Your task to perform on an android device: Add razer nari to the cart on bestbuy, then select checkout. Image 0: 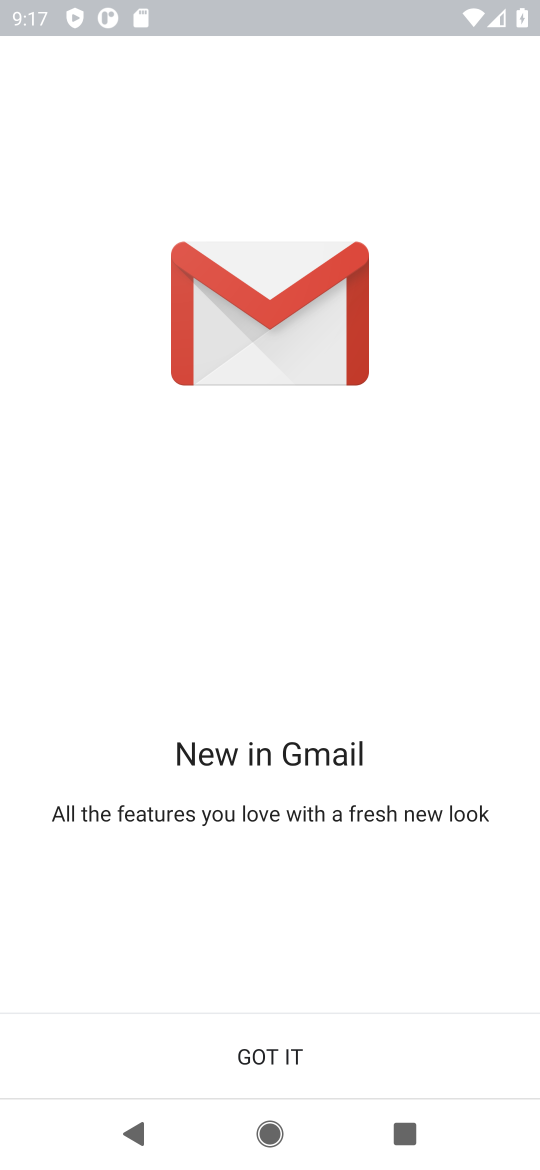
Step 0: press home button
Your task to perform on an android device: Add razer nari to the cart on bestbuy, then select checkout. Image 1: 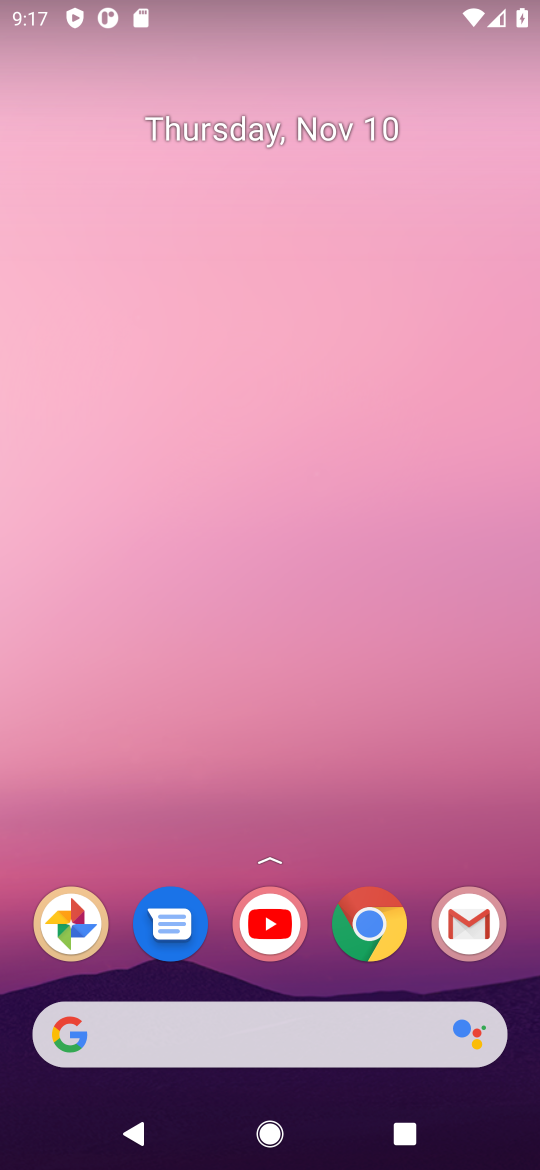
Step 1: click (376, 920)
Your task to perform on an android device: Add razer nari to the cart on bestbuy, then select checkout. Image 2: 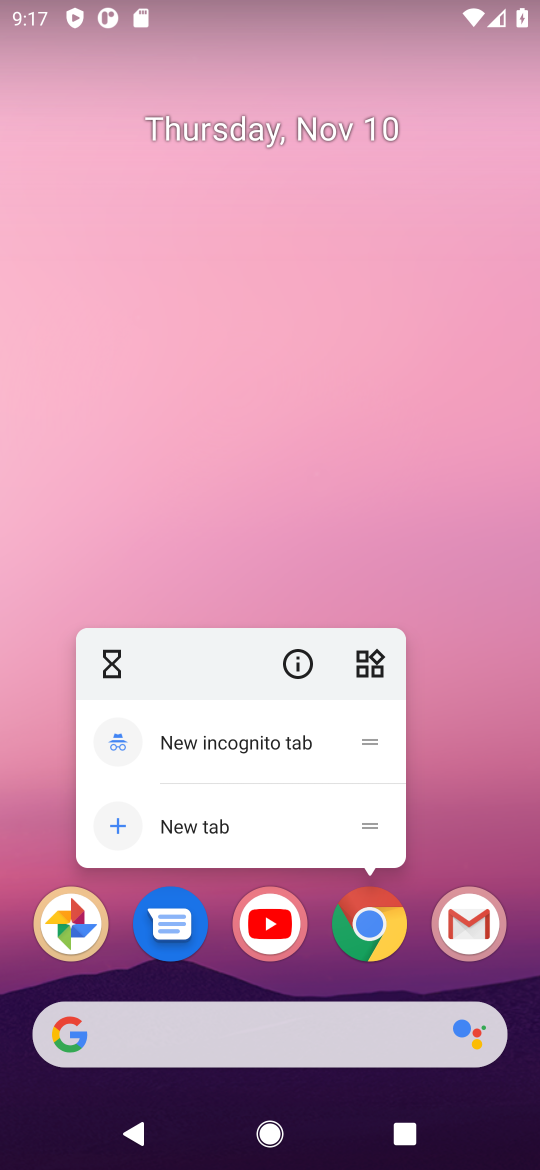
Step 2: click (376, 920)
Your task to perform on an android device: Add razer nari to the cart on bestbuy, then select checkout. Image 3: 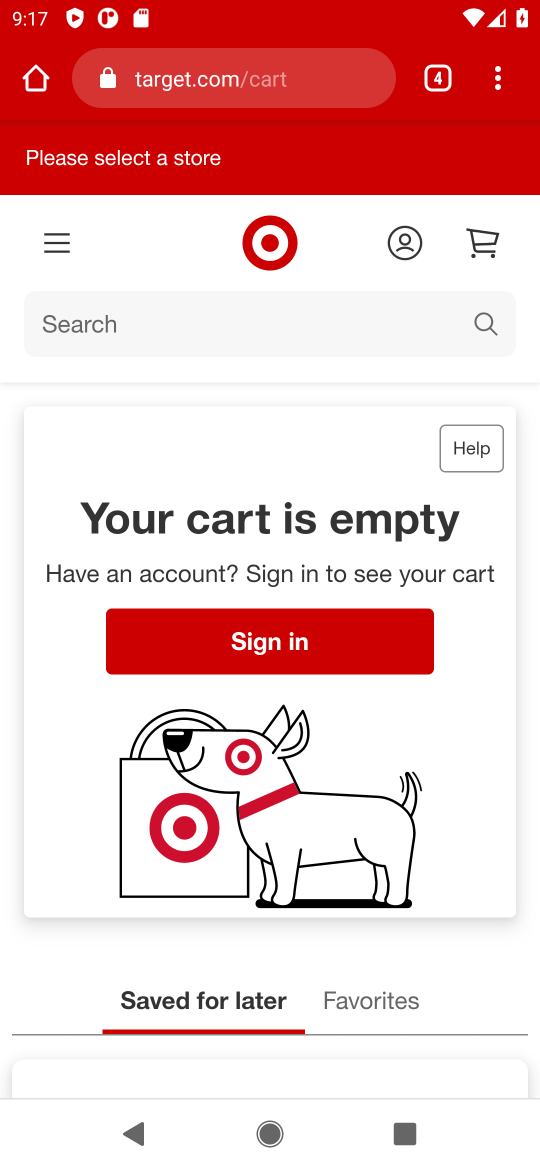
Step 3: click (226, 95)
Your task to perform on an android device: Add razer nari to the cart on bestbuy, then select checkout. Image 4: 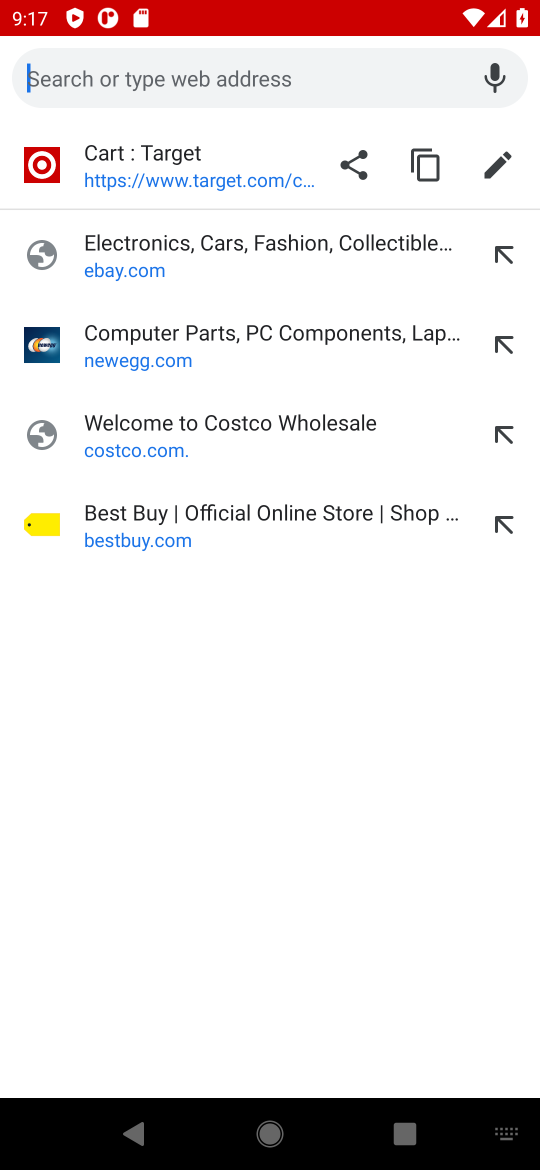
Step 4: click (136, 538)
Your task to perform on an android device: Add razer nari to the cart on bestbuy, then select checkout. Image 5: 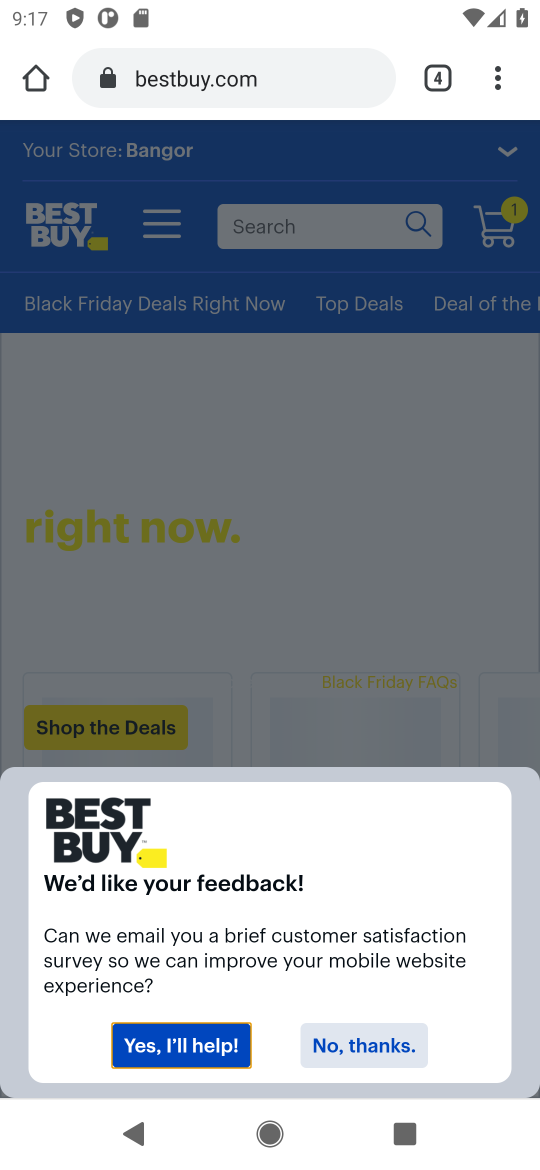
Step 5: click (355, 1047)
Your task to perform on an android device: Add razer nari to the cart on bestbuy, then select checkout. Image 6: 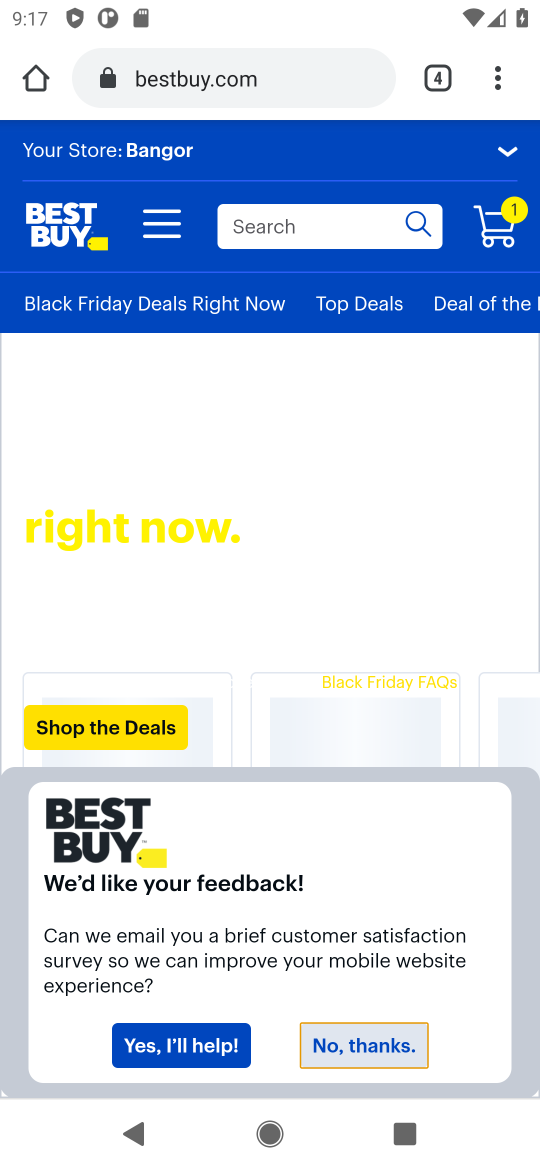
Step 6: click (280, 240)
Your task to perform on an android device: Add razer nari to the cart on bestbuy, then select checkout. Image 7: 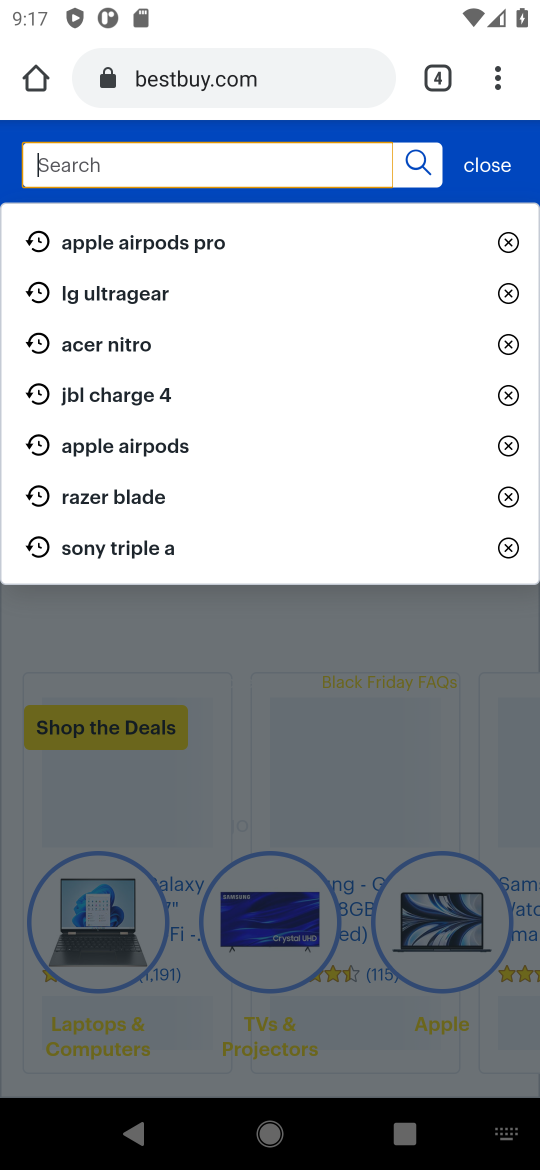
Step 7: type "razer nari "
Your task to perform on an android device: Add razer nari to the cart on bestbuy, then select checkout. Image 8: 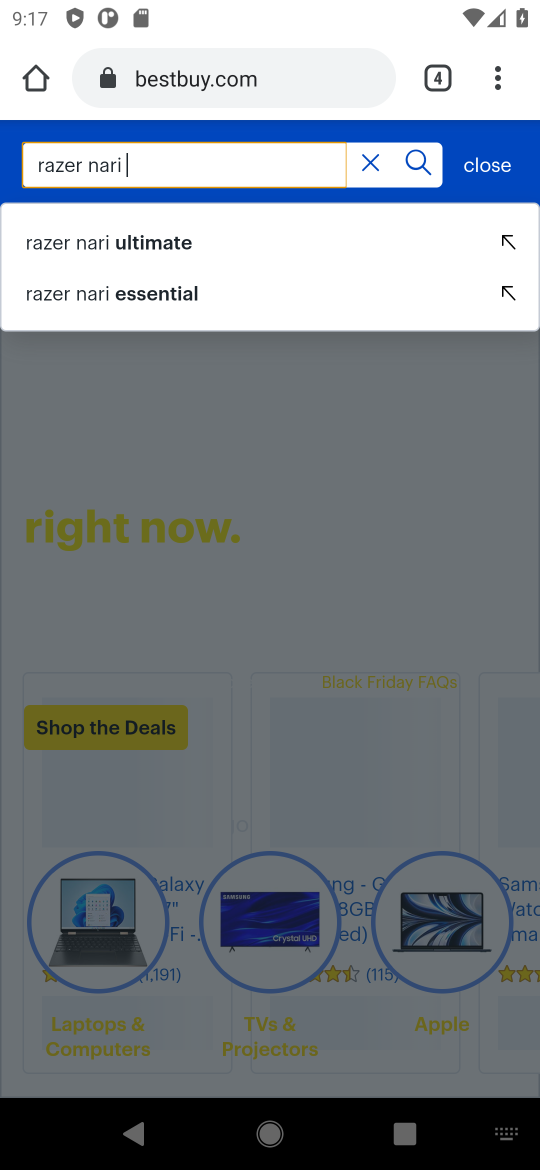
Step 8: click (415, 159)
Your task to perform on an android device: Add razer nari to the cart on bestbuy, then select checkout. Image 9: 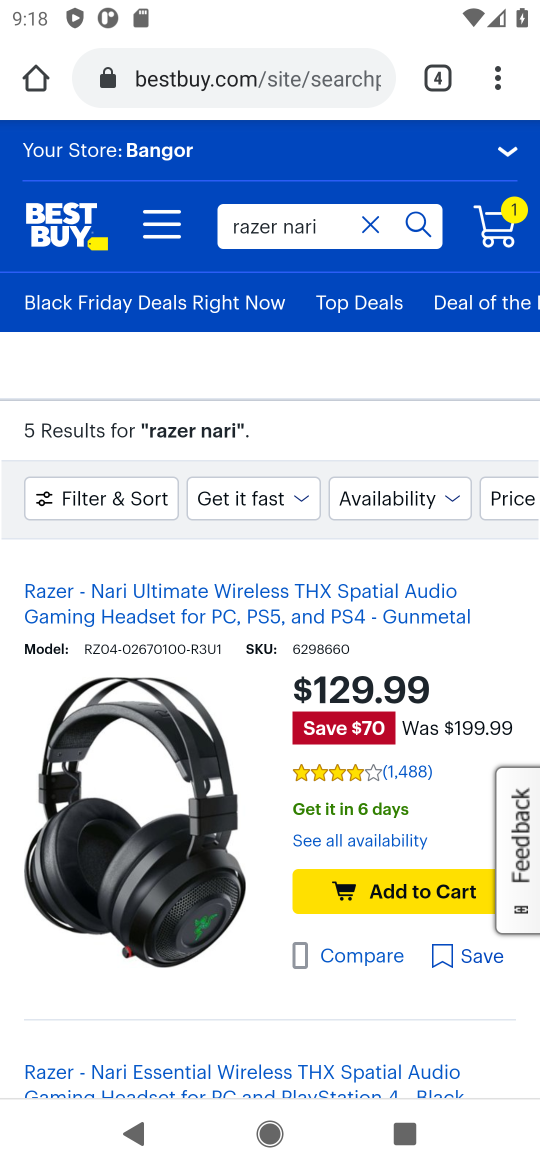
Step 9: click (417, 898)
Your task to perform on an android device: Add razer nari to the cart on bestbuy, then select checkout. Image 10: 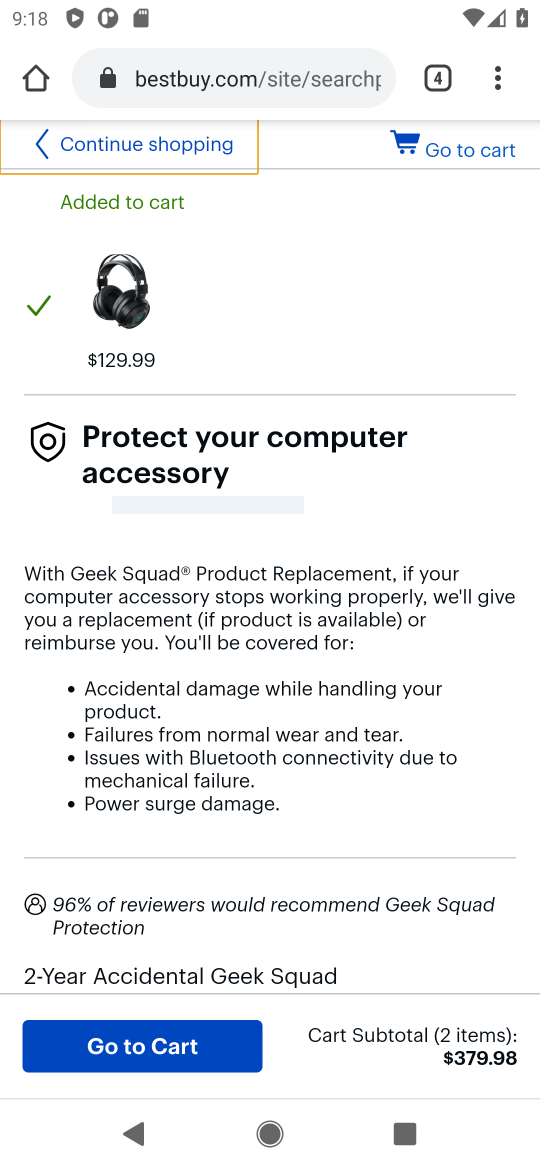
Step 10: click (478, 159)
Your task to perform on an android device: Add razer nari to the cart on bestbuy, then select checkout. Image 11: 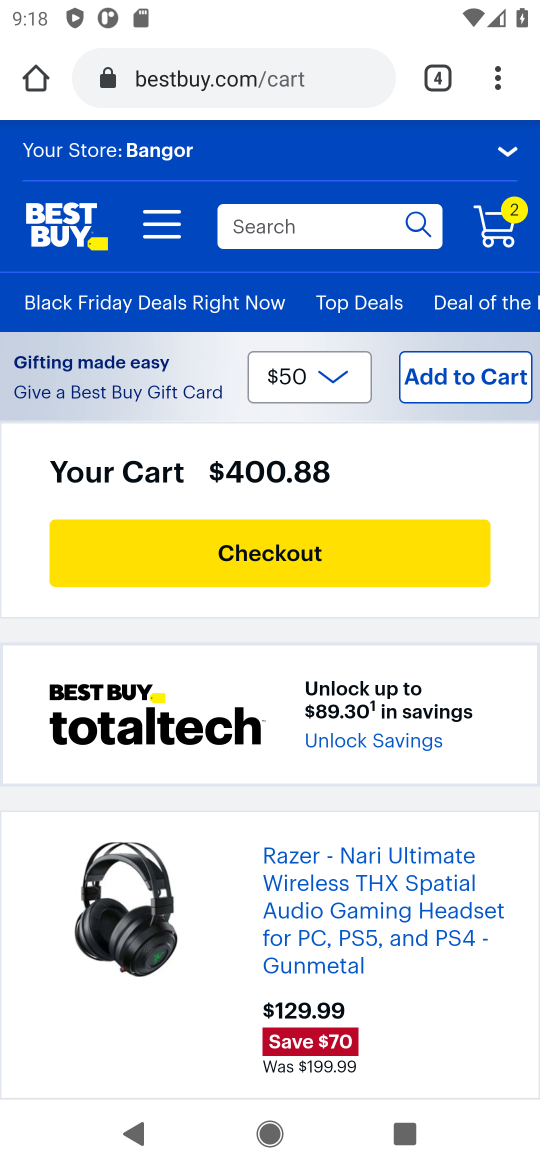
Step 11: click (275, 543)
Your task to perform on an android device: Add razer nari to the cart on bestbuy, then select checkout. Image 12: 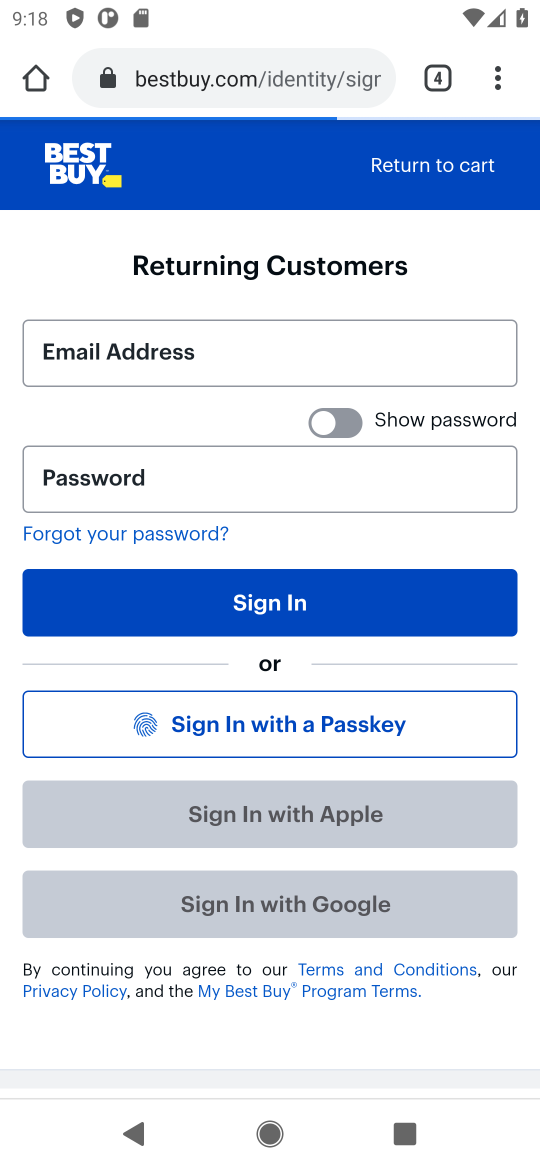
Step 12: task complete